Your task to perform on an android device: What's on my calendar tomorrow? Image 0: 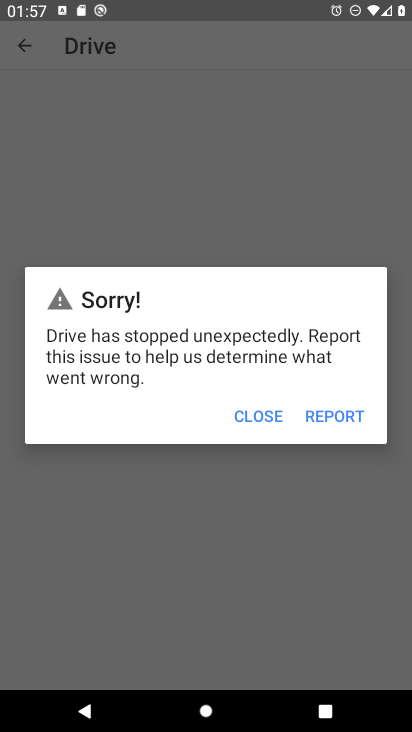
Step 0: press home button
Your task to perform on an android device: What's on my calendar tomorrow? Image 1: 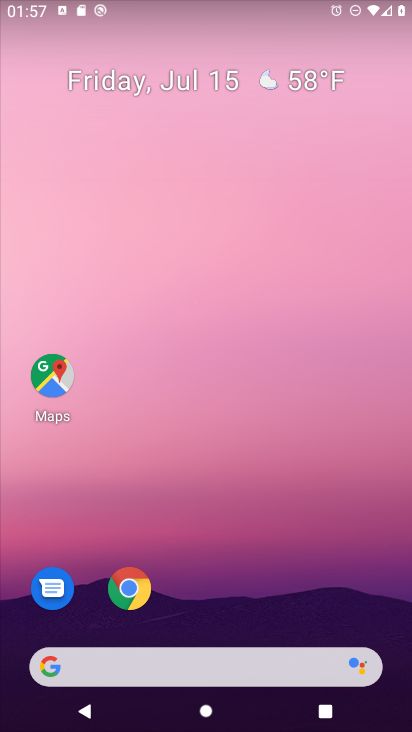
Step 1: drag from (357, 602) to (313, 87)
Your task to perform on an android device: What's on my calendar tomorrow? Image 2: 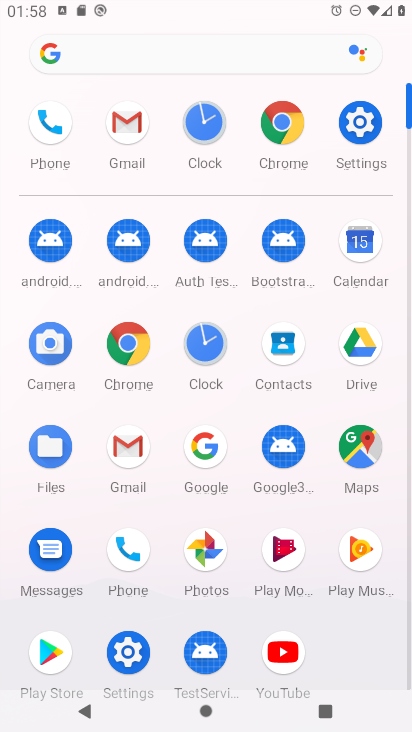
Step 2: click (358, 238)
Your task to perform on an android device: What's on my calendar tomorrow? Image 3: 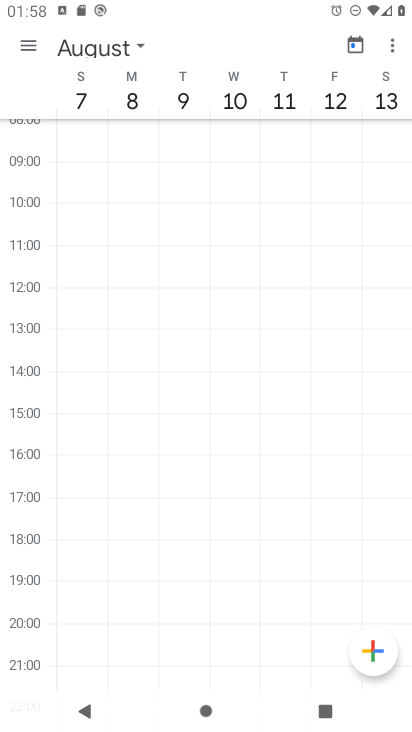
Step 3: click (394, 45)
Your task to perform on an android device: What's on my calendar tomorrow? Image 4: 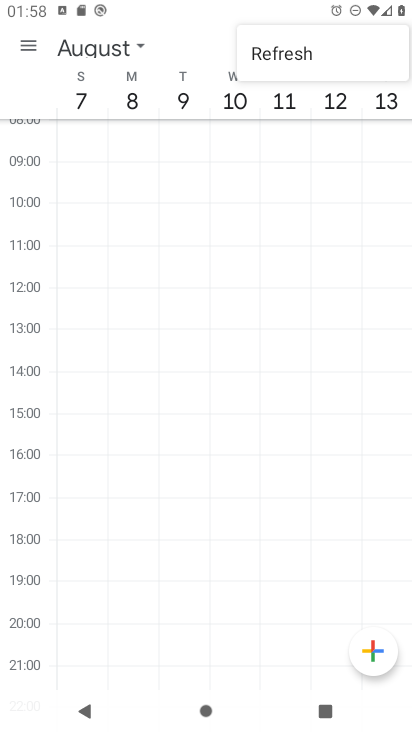
Step 4: click (282, 267)
Your task to perform on an android device: What's on my calendar tomorrow? Image 5: 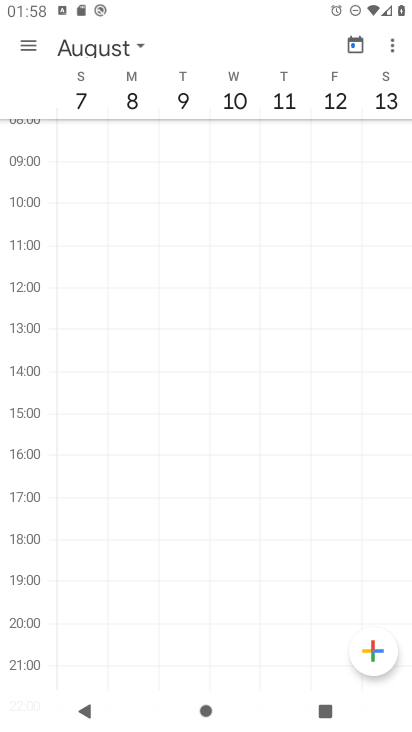
Step 5: click (37, 47)
Your task to perform on an android device: What's on my calendar tomorrow? Image 6: 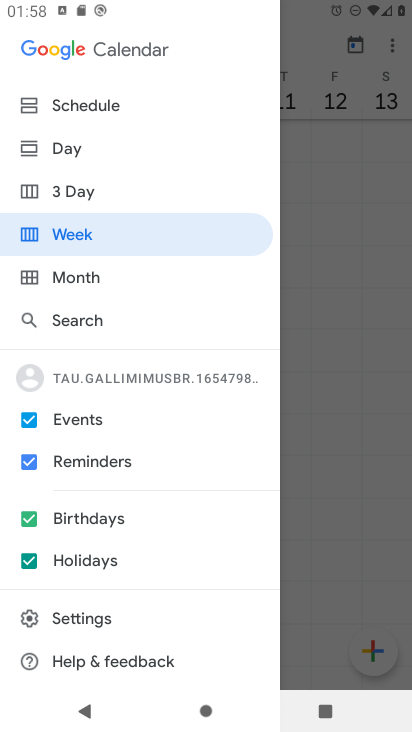
Step 6: click (65, 149)
Your task to perform on an android device: What's on my calendar tomorrow? Image 7: 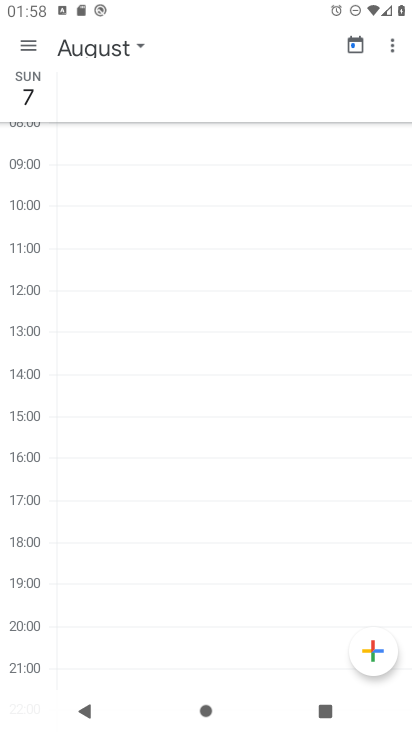
Step 7: click (135, 49)
Your task to perform on an android device: What's on my calendar tomorrow? Image 8: 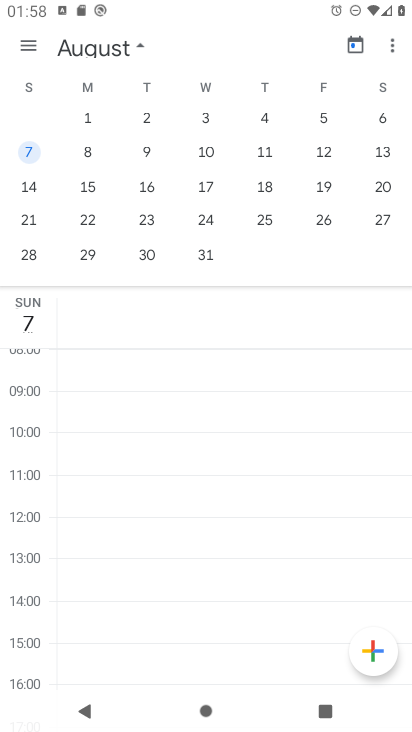
Step 8: drag from (31, 224) to (385, 188)
Your task to perform on an android device: What's on my calendar tomorrow? Image 9: 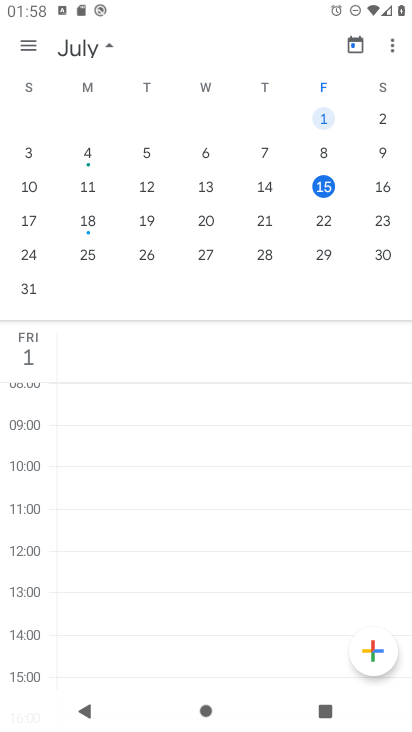
Step 9: click (374, 191)
Your task to perform on an android device: What's on my calendar tomorrow? Image 10: 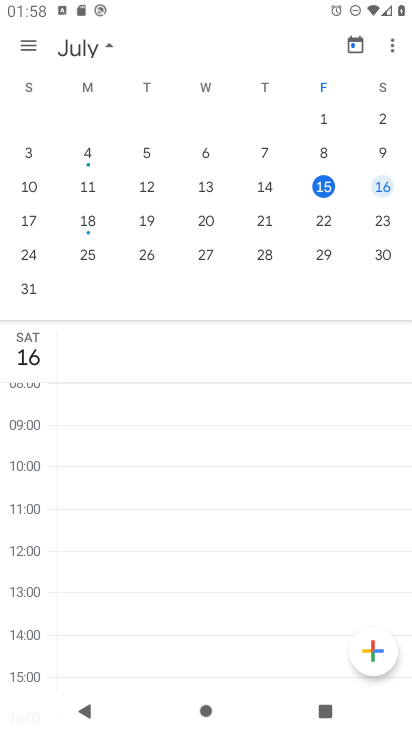
Step 10: task complete